Your task to perform on an android device: Clear the shopping cart on newegg. Search for "dell xps" on newegg, select the first entry, and add it to the cart. Image 0: 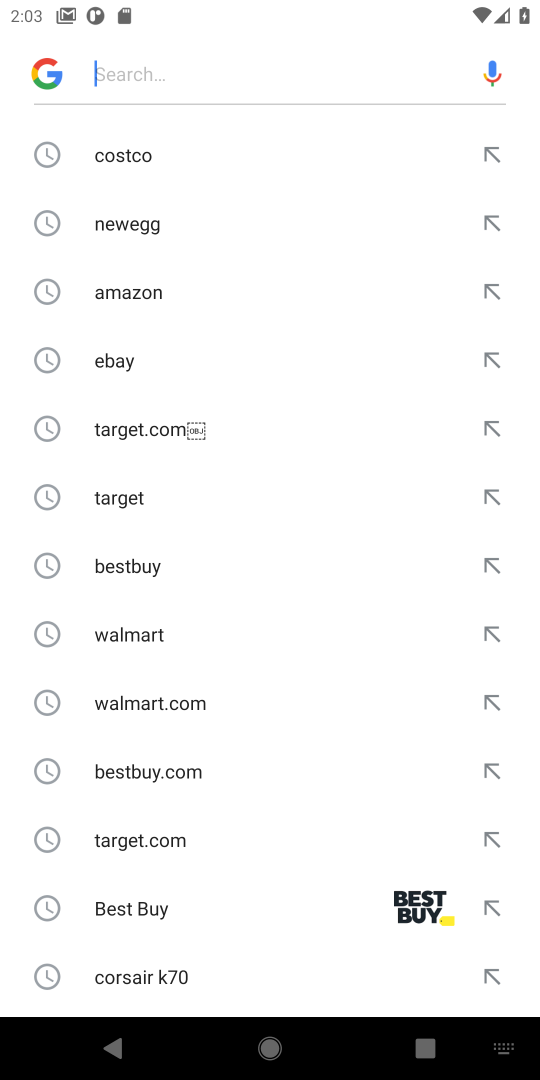
Step 0: click (118, 76)
Your task to perform on an android device: Clear the shopping cart on newegg. Search for "dell xps" on newegg, select the first entry, and add it to the cart. Image 1: 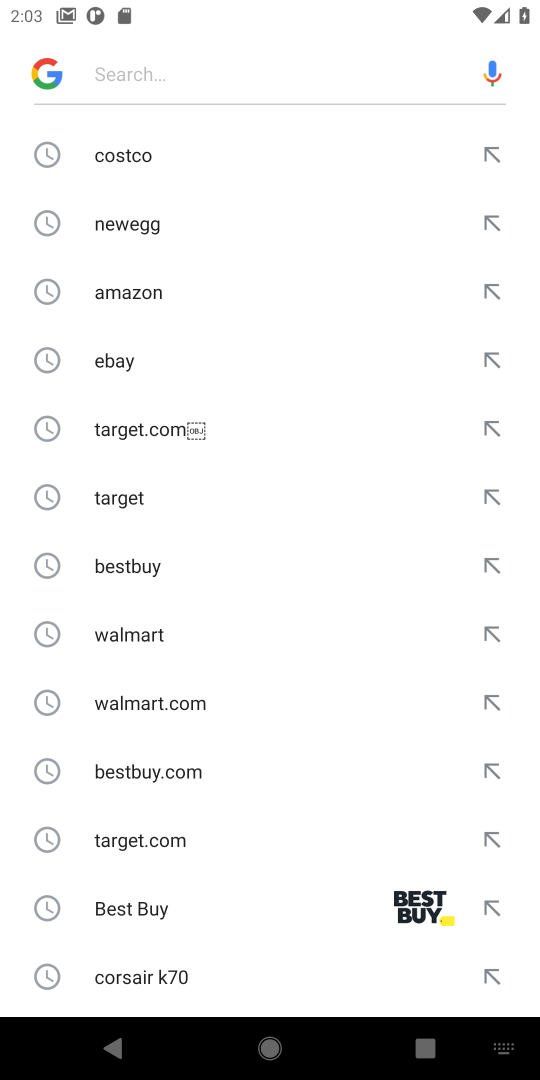
Step 1: type "newegg.com"
Your task to perform on an android device: Clear the shopping cart on newegg. Search for "dell xps" on newegg, select the first entry, and add it to the cart. Image 2: 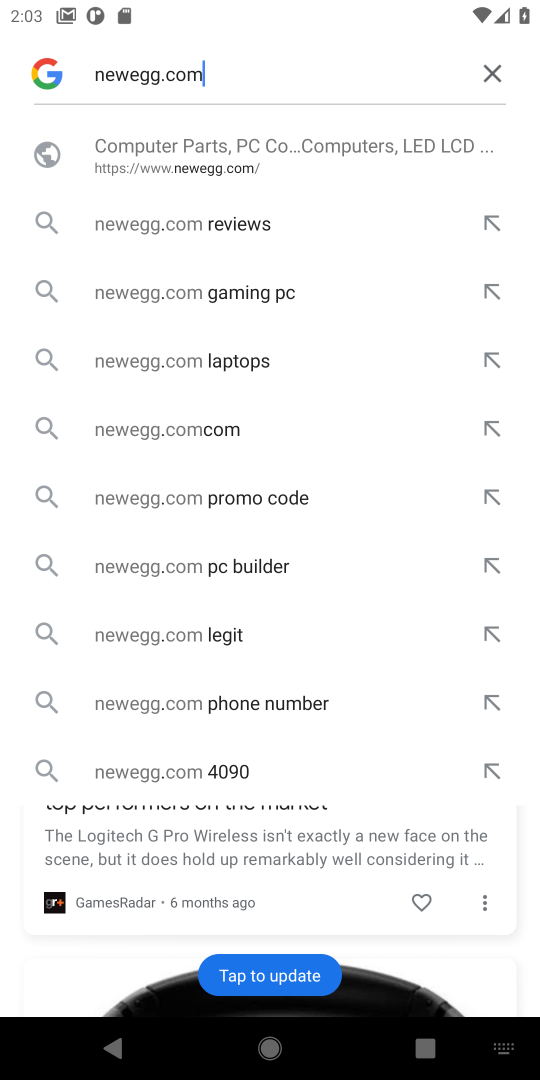
Step 2: click (180, 172)
Your task to perform on an android device: Clear the shopping cart on newegg. Search for "dell xps" on newegg, select the first entry, and add it to the cart. Image 3: 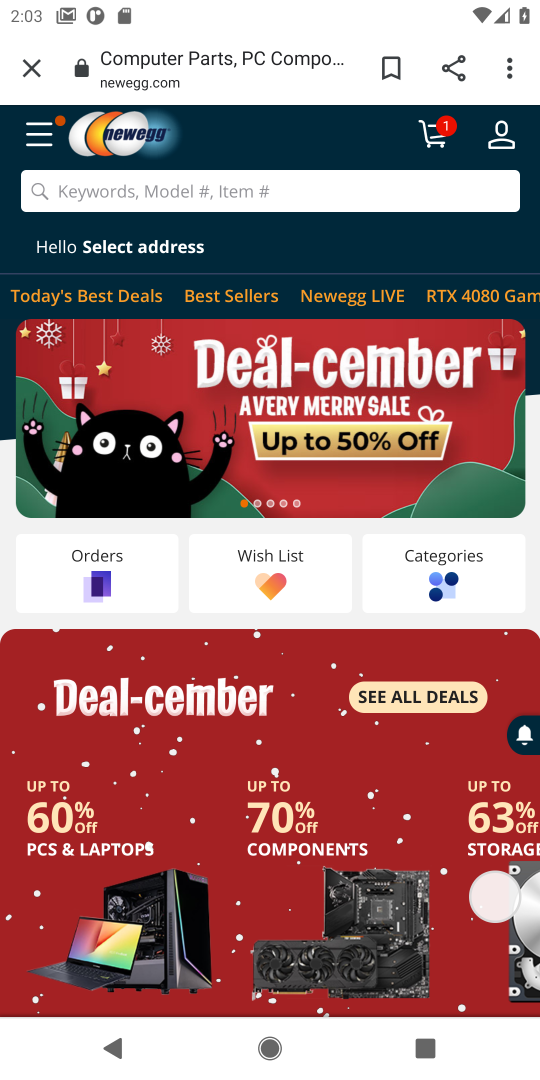
Step 3: click (430, 147)
Your task to perform on an android device: Clear the shopping cart on newegg. Search for "dell xps" on newegg, select the first entry, and add it to the cart. Image 4: 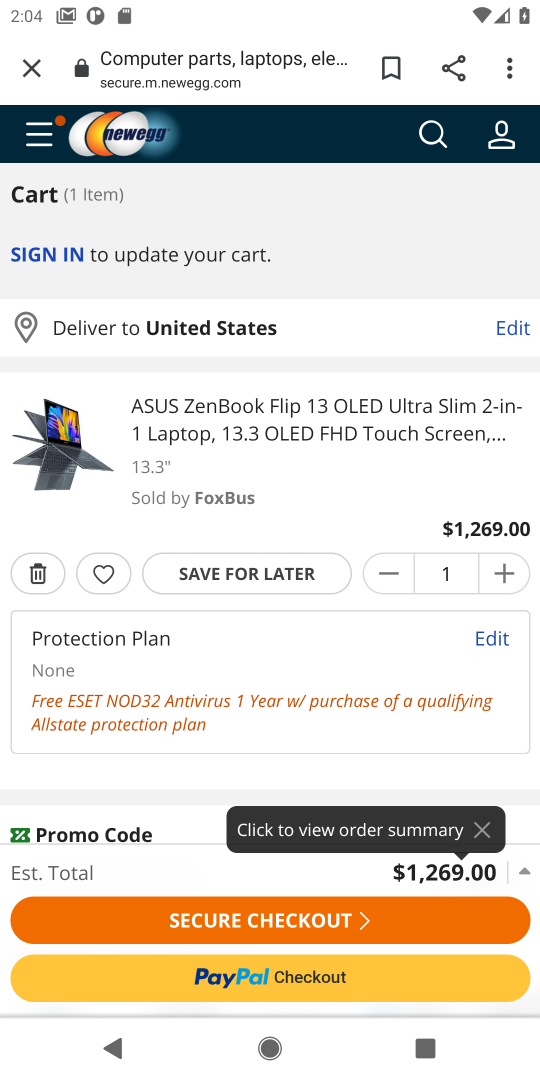
Step 4: click (39, 582)
Your task to perform on an android device: Clear the shopping cart on newegg. Search for "dell xps" on newegg, select the first entry, and add it to the cart. Image 5: 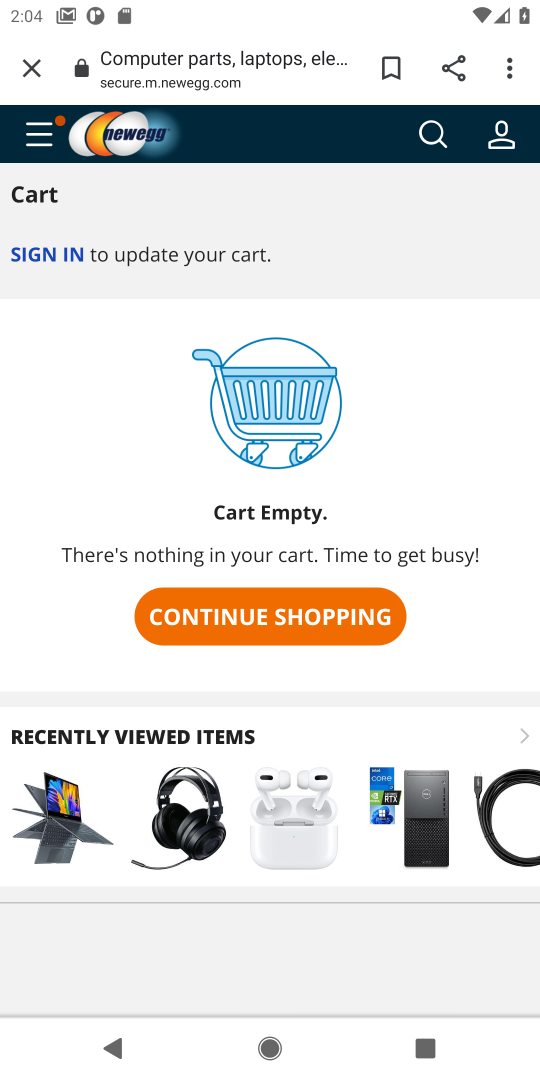
Step 5: click (434, 146)
Your task to perform on an android device: Clear the shopping cart on newegg. Search for "dell xps" on newegg, select the first entry, and add it to the cart. Image 6: 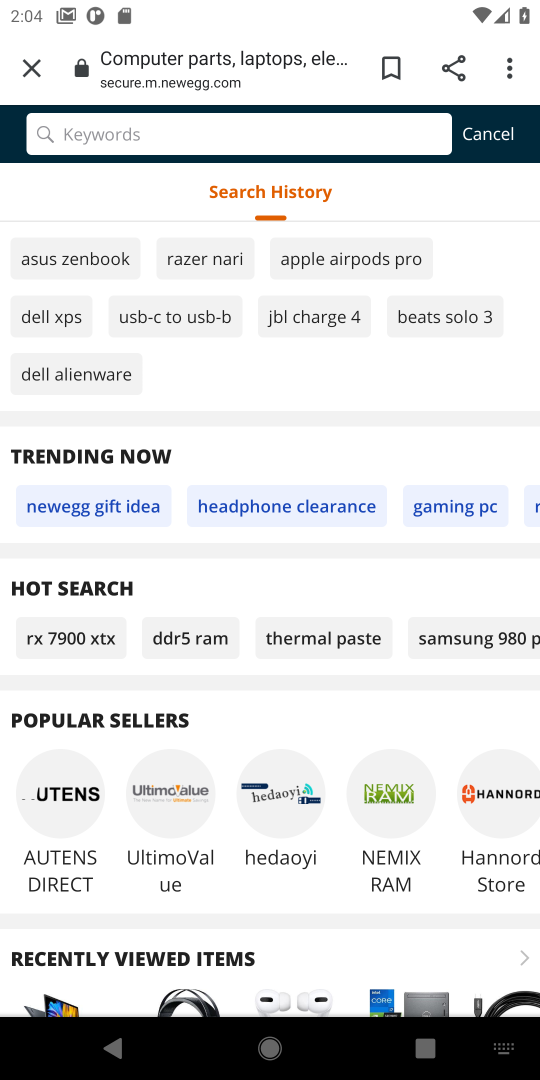
Step 6: type "dell xps"
Your task to perform on an android device: Clear the shopping cart on newegg. Search for "dell xps" on newegg, select the first entry, and add it to the cart. Image 7: 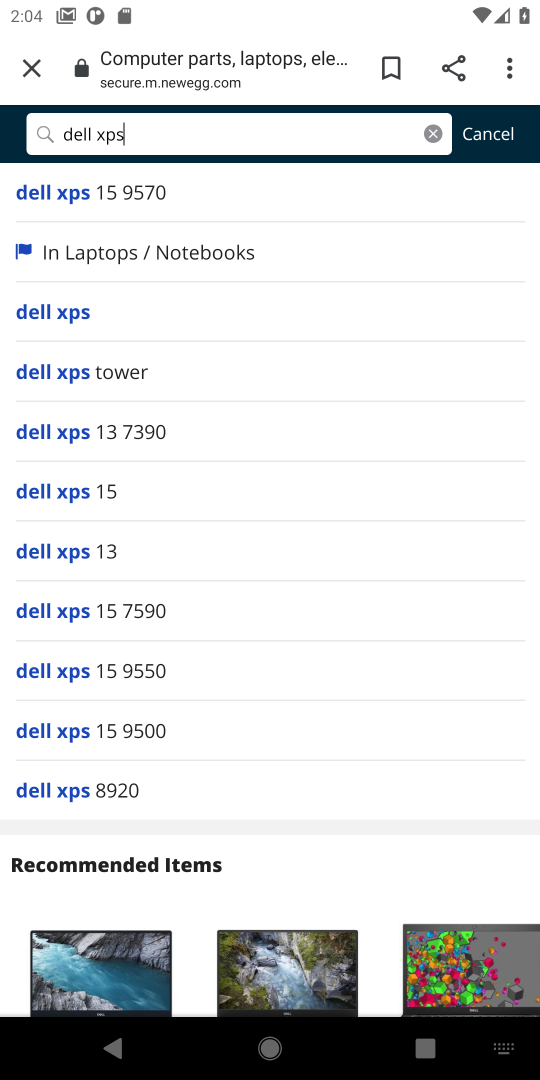
Step 7: click (60, 322)
Your task to perform on an android device: Clear the shopping cart on newegg. Search for "dell xps" on newegg, select the first entry, and add it to the cart. Image 8: 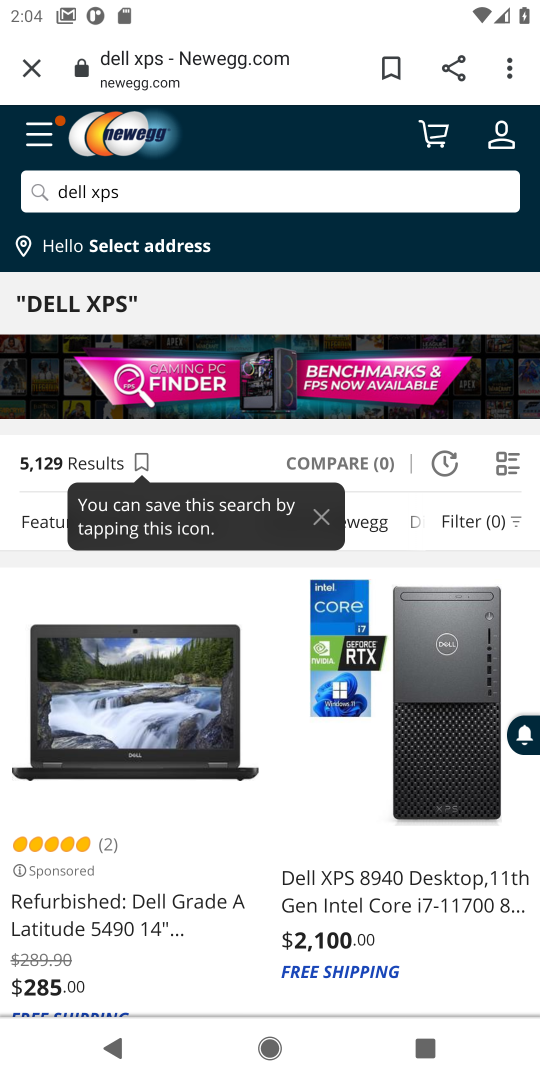
Step 8: task complete